Your task to perform on an android device: open the mobile data screen to see how much data has been used Image 0: 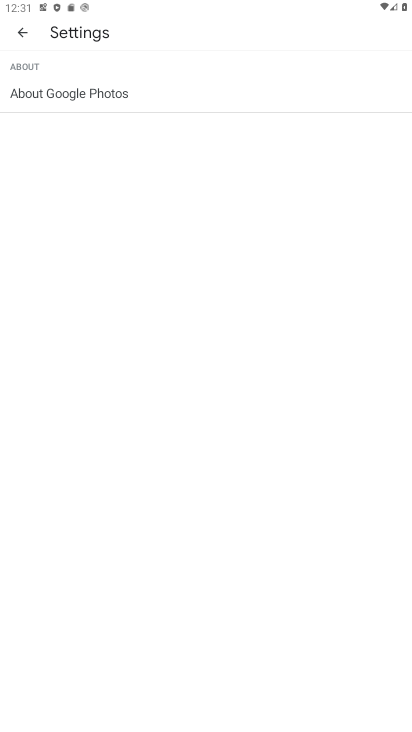
Step 0: press home button
Your task to perform on an android device: open the mobile data screen to see how much data has been used Image 1: 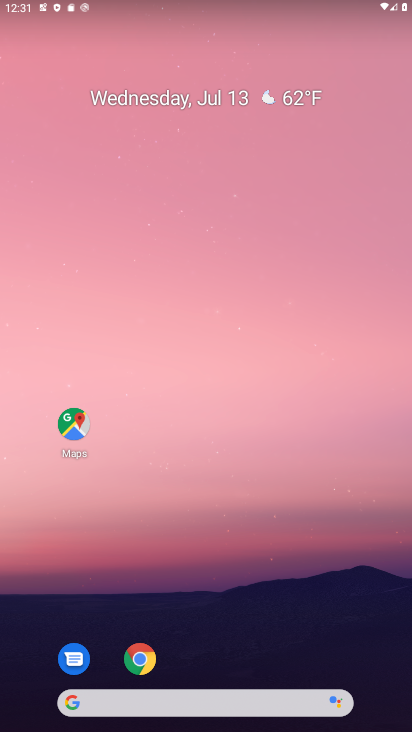
Step 1: drag from (230, 696) to (262, 156)
Your task to perform on an android device: open the mobile data screen to see how much data has been used Image 2: 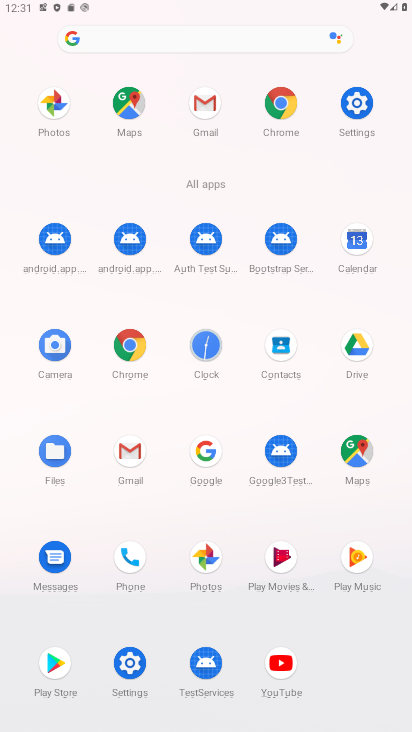
Step 2: click (360, 102)
Your task to perform on an android device: open the mobile data screen to see how much data has been used Image 3: 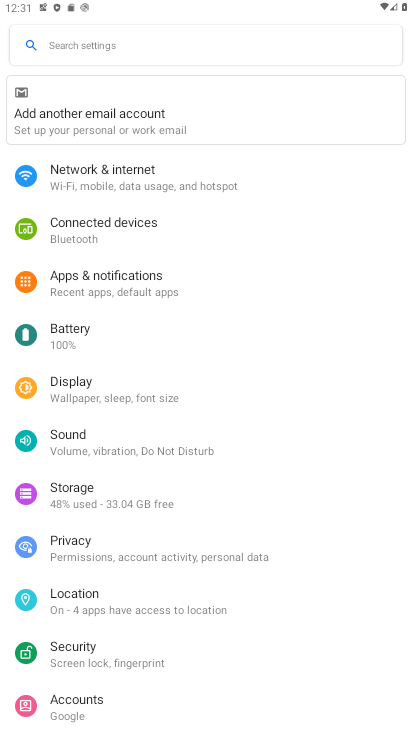
Step 3: click (114, 177)
Your task to perform on an android device: open the mobile data screen to see how much data has been used Image 4: 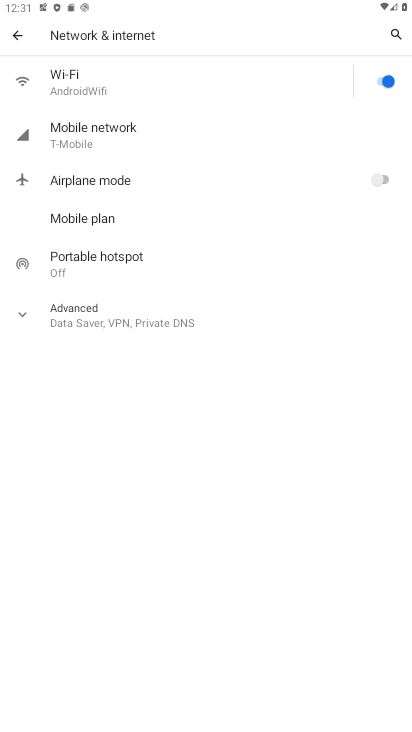
Step 4: click (84, 135)
Your task to perform on an android device: open the mobile data screen to see how much data has been used Image 5: 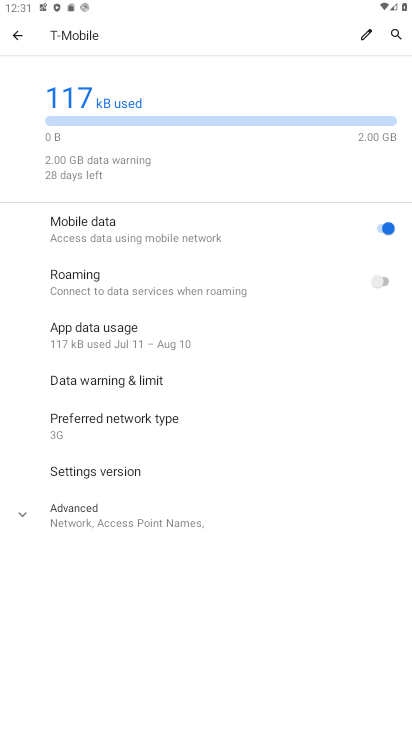
Step 5: click (107, 332)
Your task to perform on an android device: open the mobile data screen to see how much data has been used Image 6: 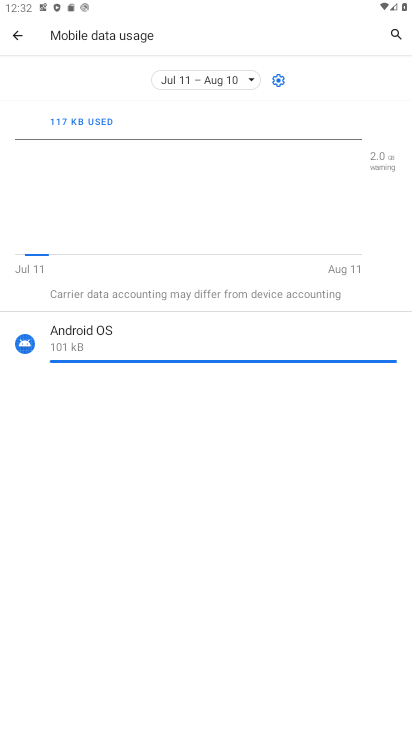
Step 6: task complete